Your task to perform on an android device: Search for hotels in NYC Image 0: 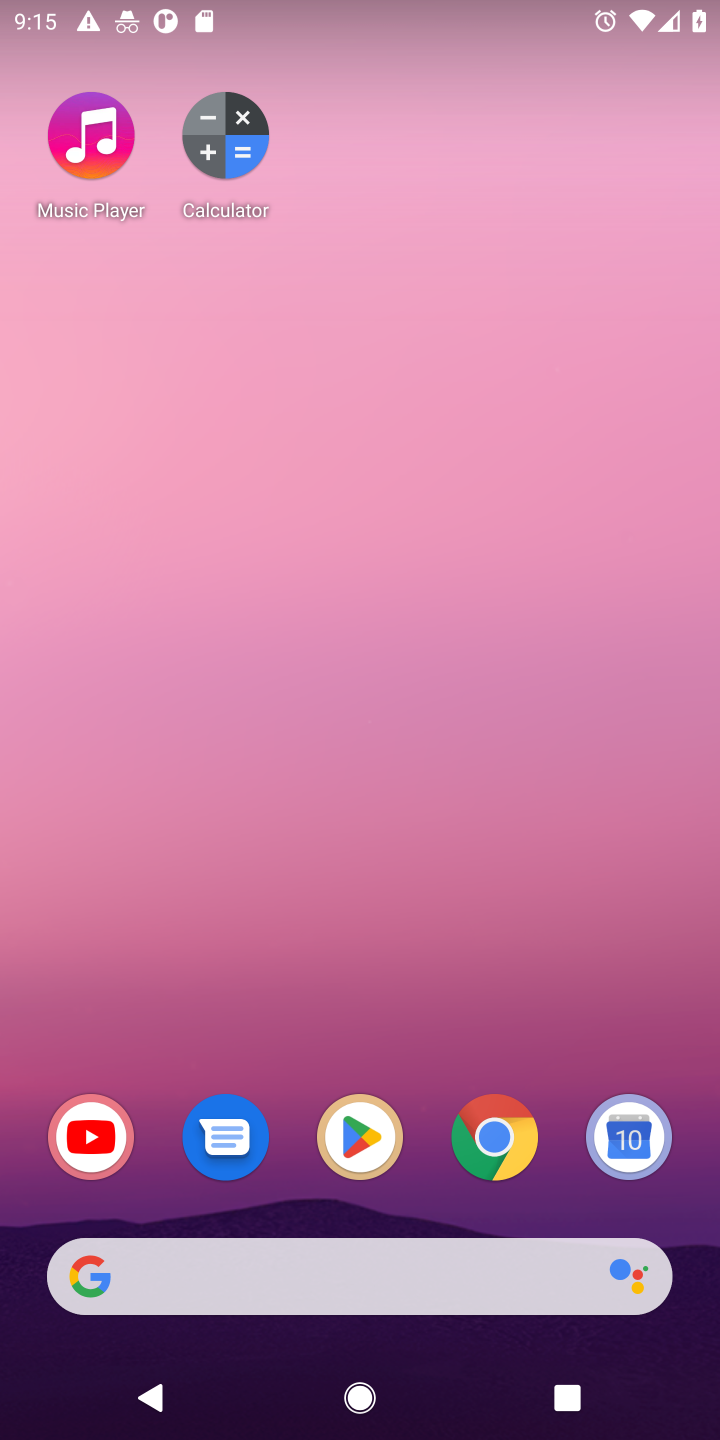
Step 0: click (496, 1133)
Your task to perform on an android device: Search for hotels in NYC Image 1: 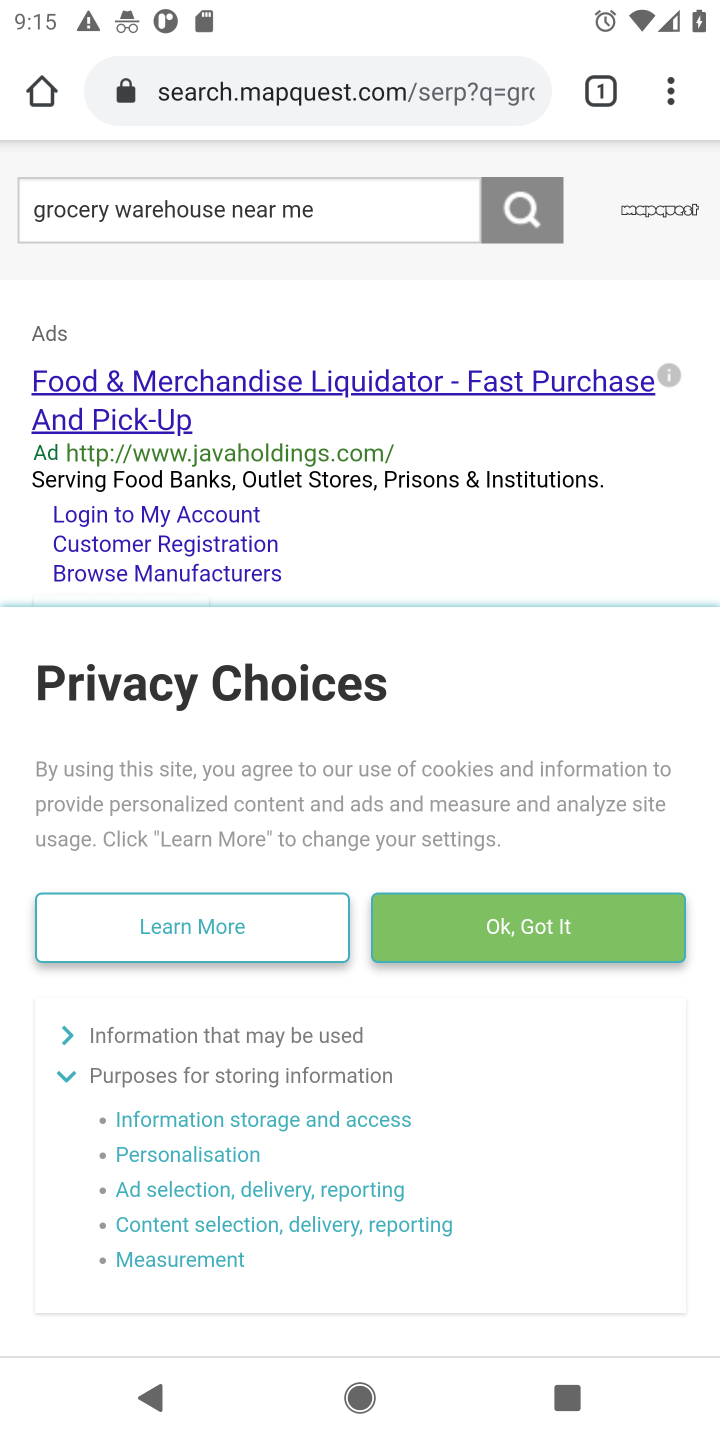
Step 1: click (344, 64)
Your task to perform on an android device: Search for hotels in NYC Image 2: 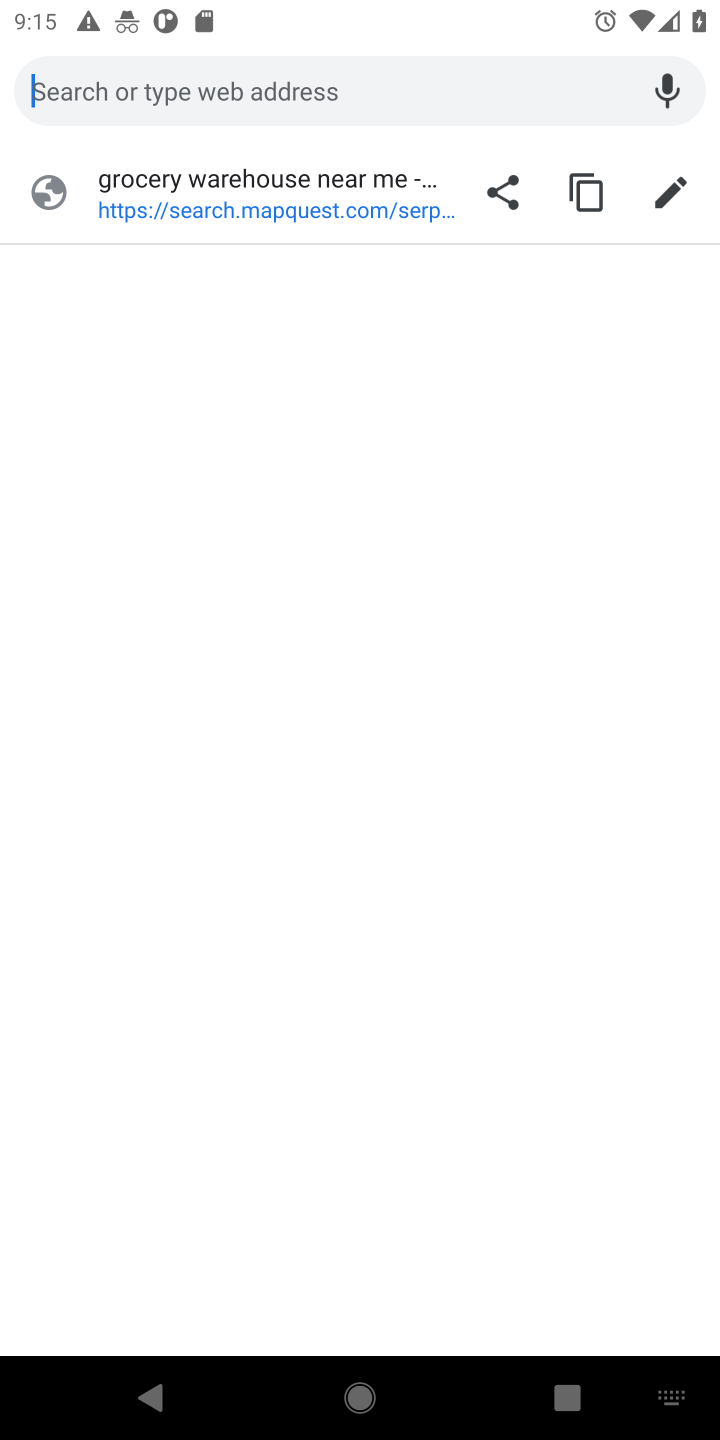
Step 2: type "hotels in NYC"
Your task to perform on an android device: Search for hotels in NYC Image 3: 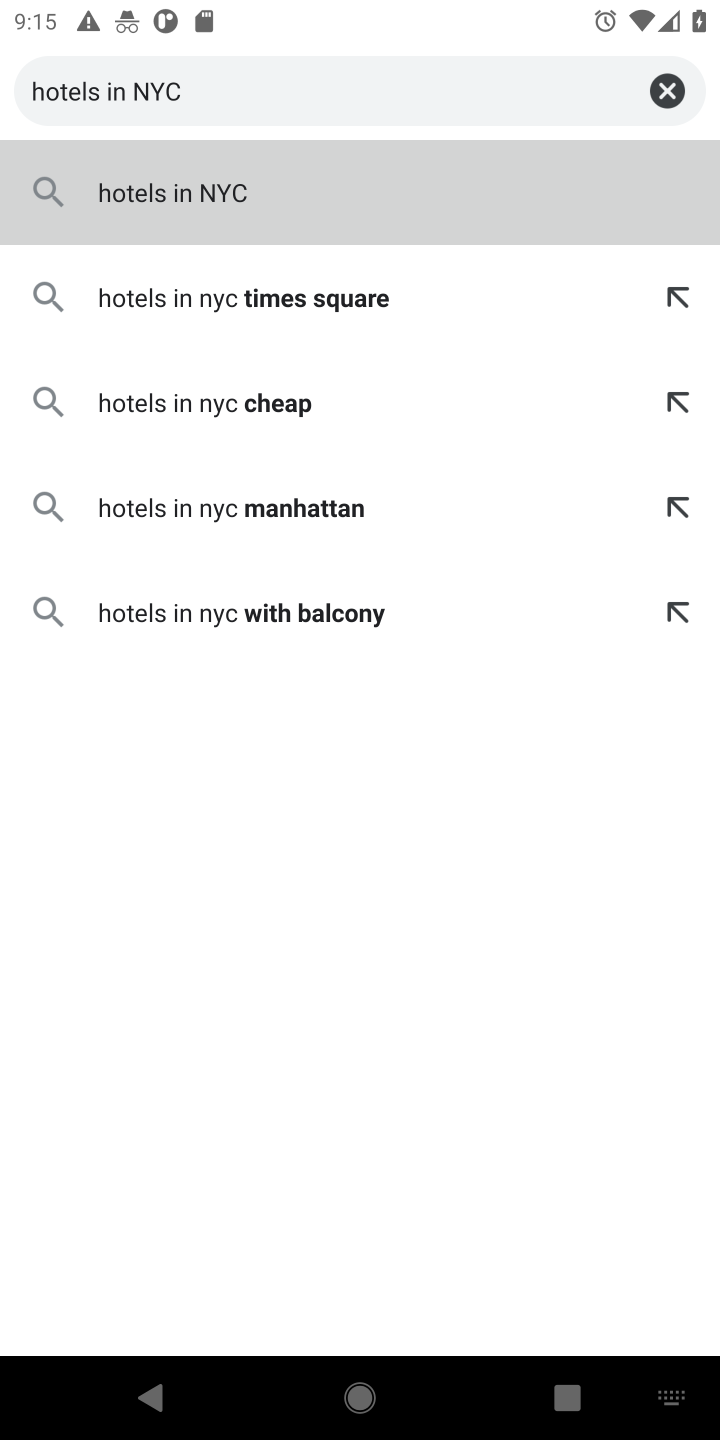
Step 3: click (166, 191)
Your task to perform on an android device: Search for hotels in NYC Image 4: 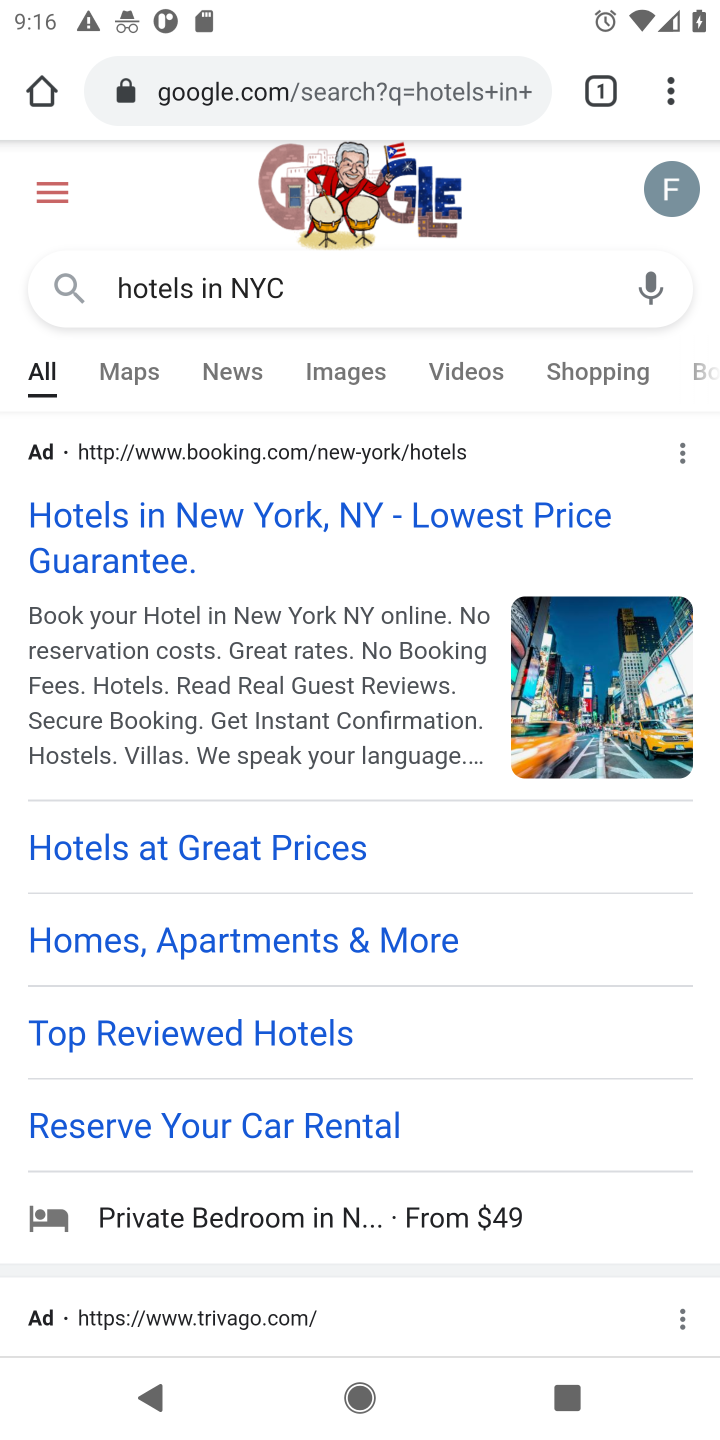
Step 4: click (129, 510)
Your task to perform on an android device: Search for hotels in NYC Image 5: 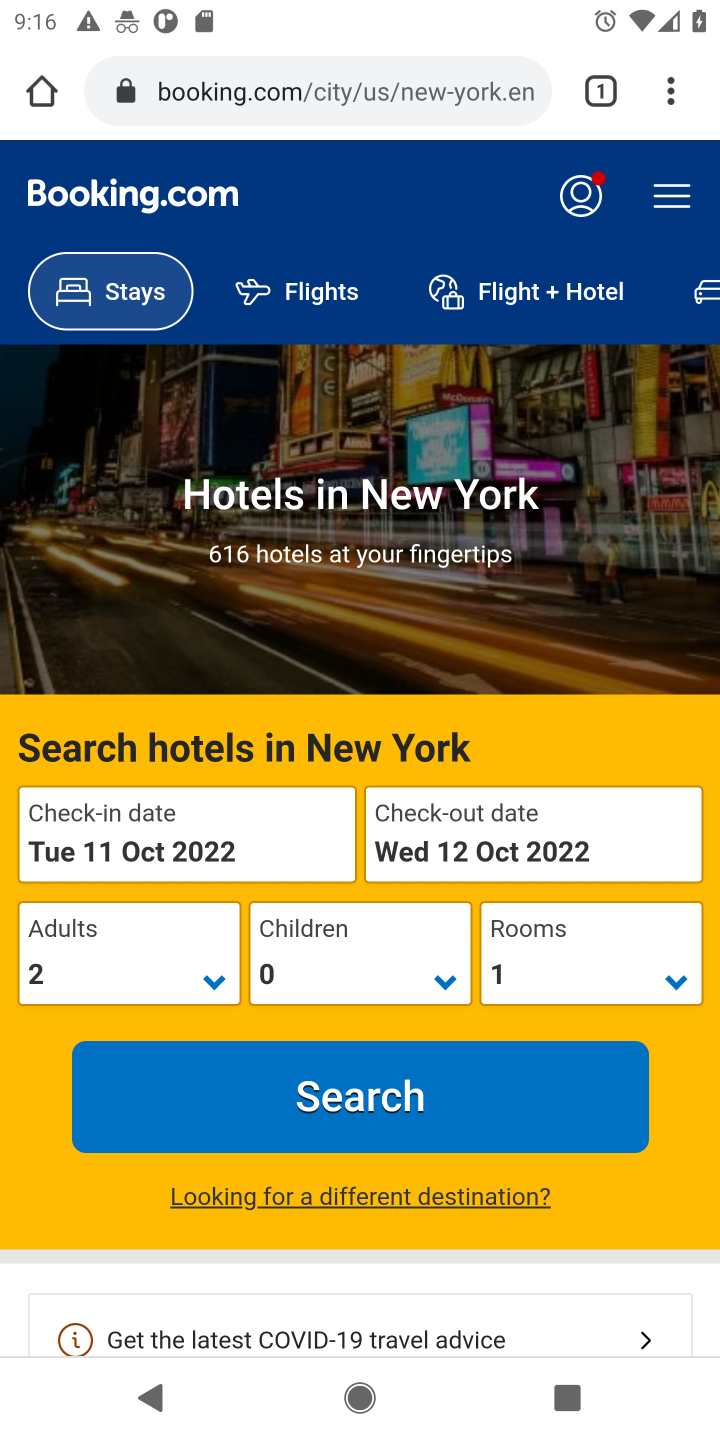
Step 5: click (330, 1099)
Your task to perform on an android device: Search for hotels in NYC Image 6: 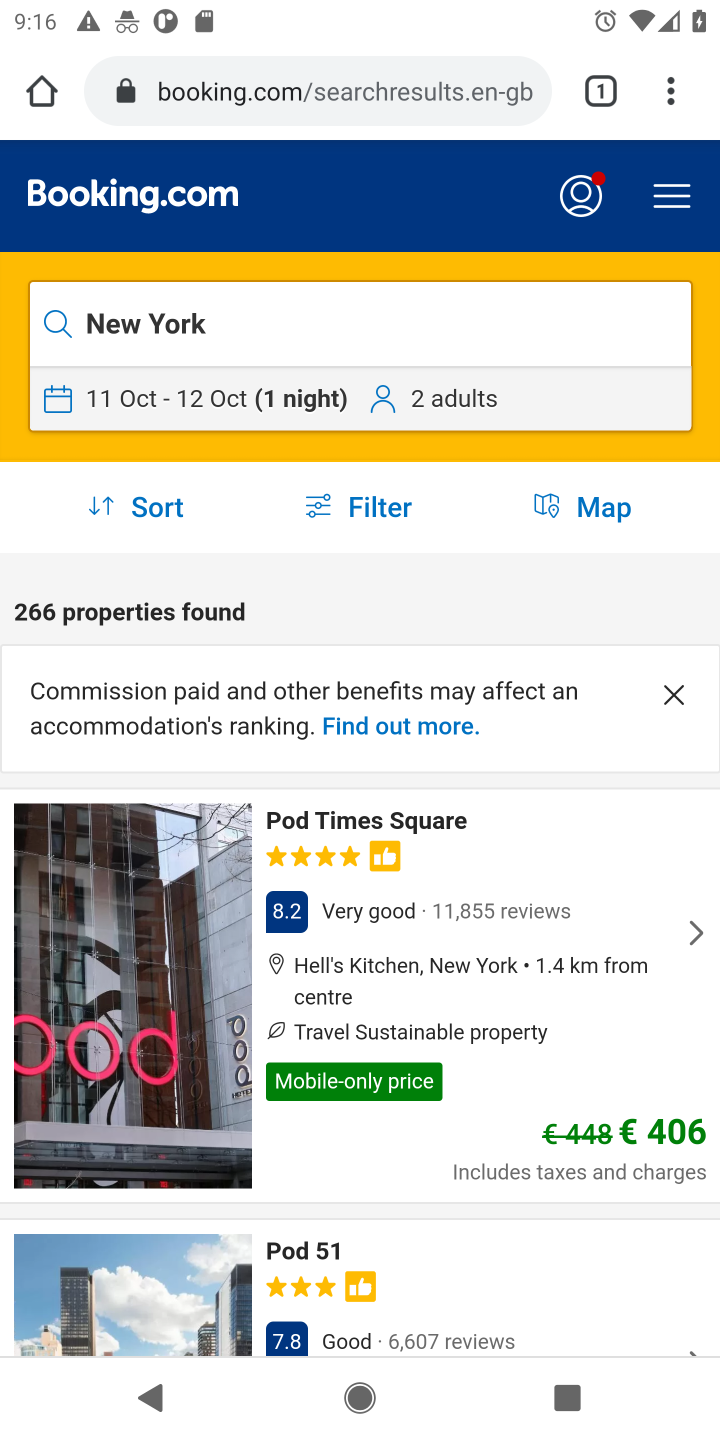
Step 6: task complete